Your task to perform on an android device: Go to ESPN.com Image 0: 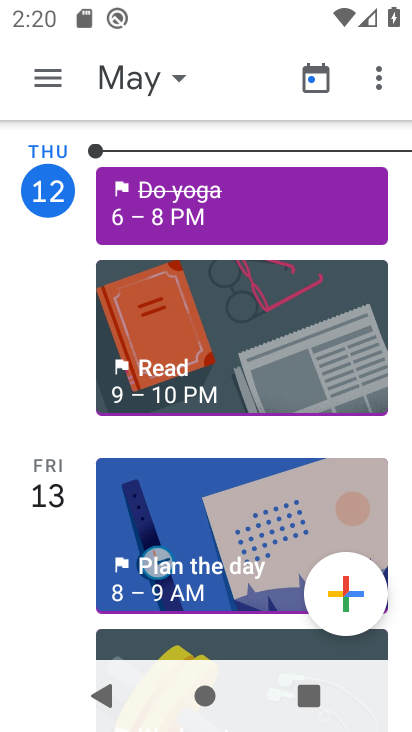
Step 0: press home button
Your task to perform on an android device: Go to ESPN.com Image 1: 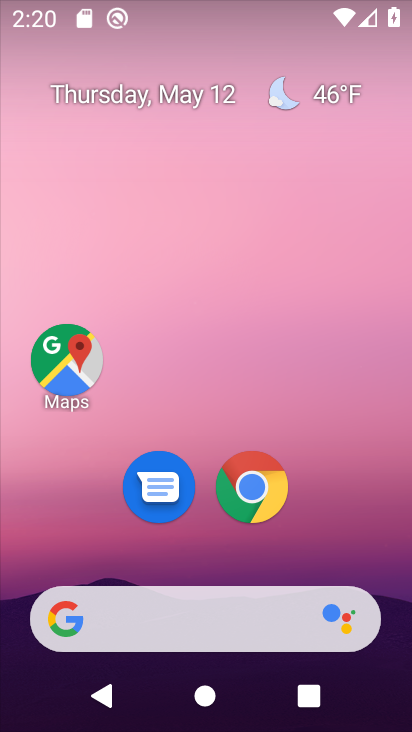
Step 1: click (247, 486)
Your task to perform on an android device: Go to ESPN.com Image 2: 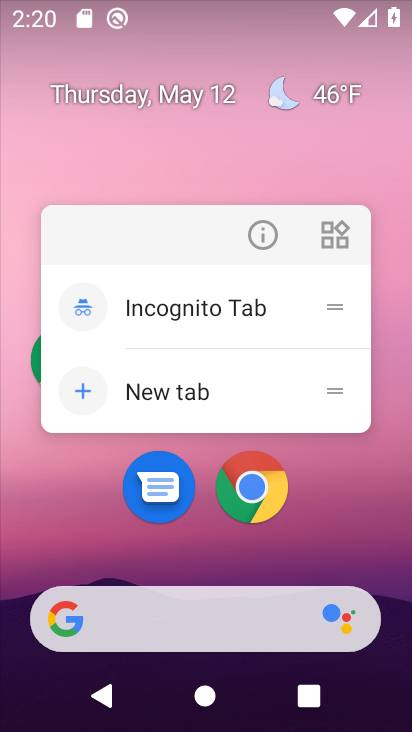
Step 2: click (247, 486)
Your task to perform on an android device: Go to ESPN.com Image 3: 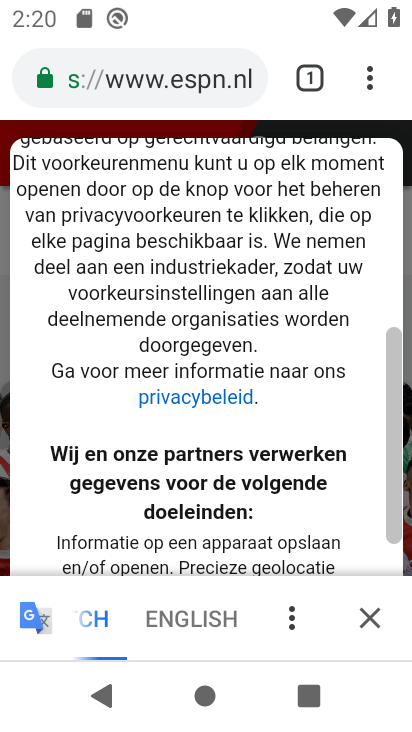
Step 3: task complete